Your task to perform on an android device: Open Amazon Image 0: 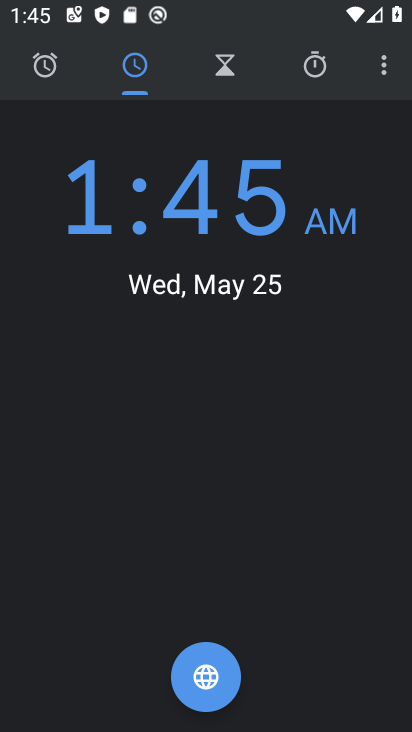
Step 0: press home button
Your task to perform on an android device: Open Amazon Image 1: 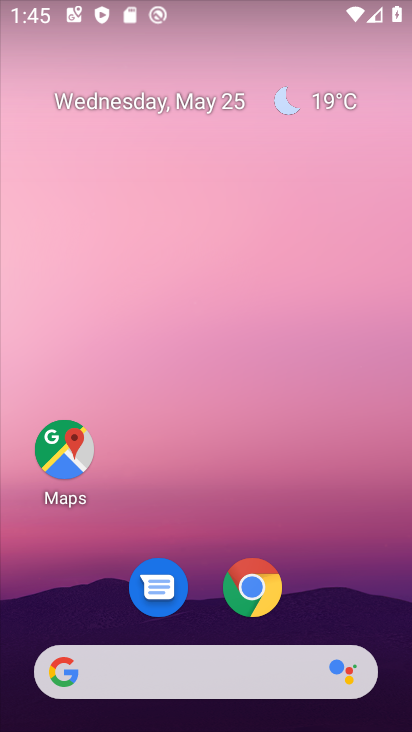
Step 1: drag from (203, 618) to (229, 188)
Your task to perform on an android device: Open Amazon Image 2: 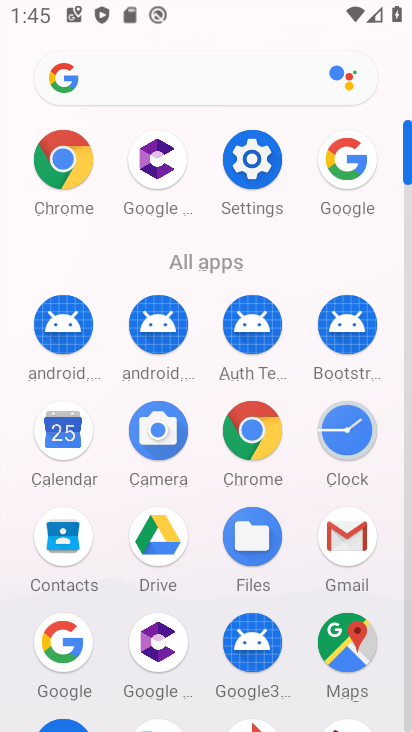
Step 2: click (259, 431)
Your task to perform on an android device: Open Amazon Image 3: 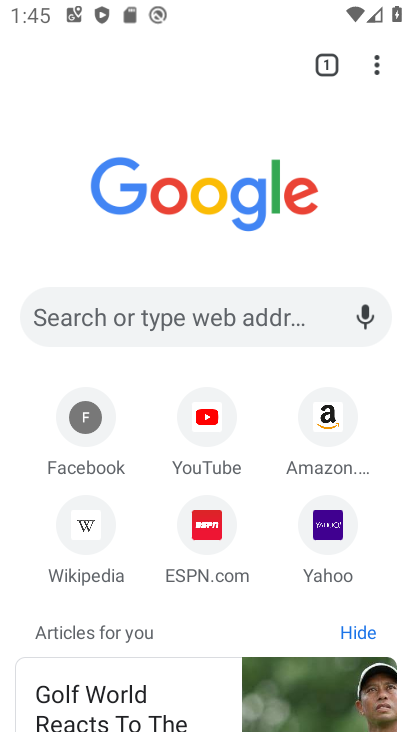
Step 3: click (329, 420)
Your task to perform on an android device: Open Amazon Image 4: 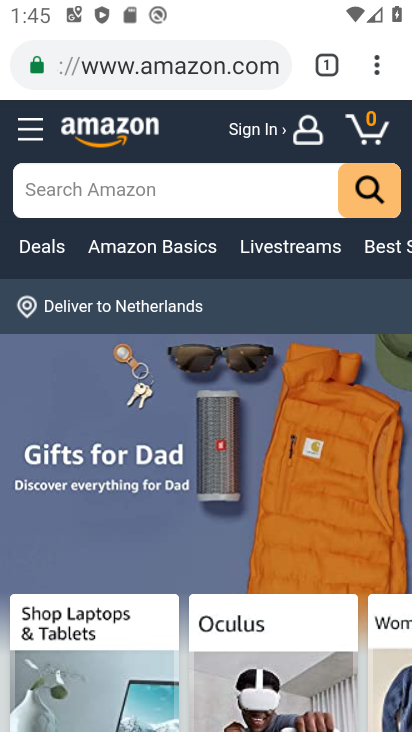
Step 4: task complete